Your task to perform on an android device: What's on my calendar today? Image 0: 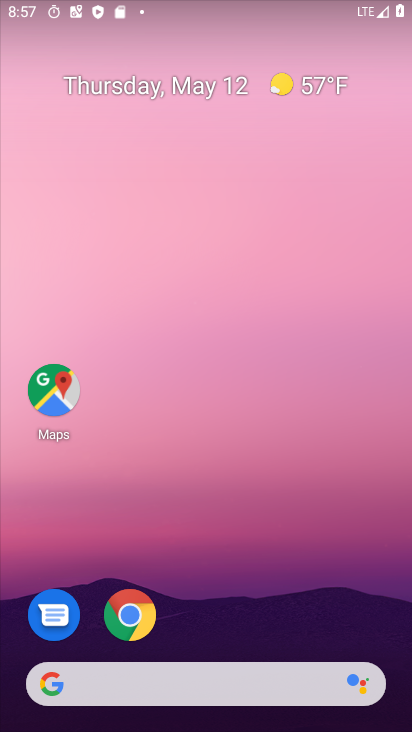
Step 0: drag from (258, 522) to (195, 63)
Your task to perform on an android device: What's on my calendar today? Image 1: 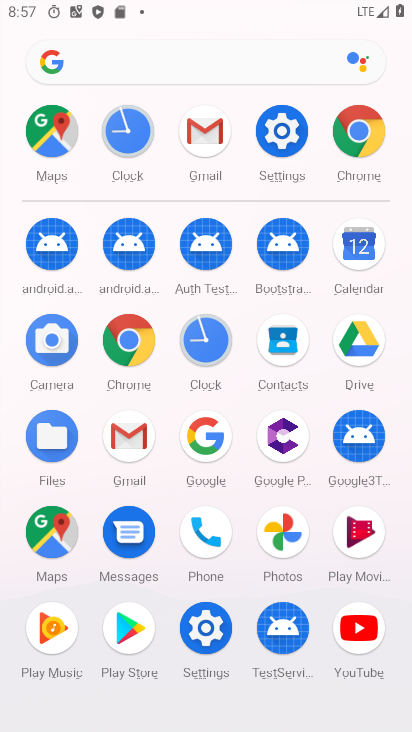
Step 1: drag from (1, 500) to (11, 231)
Your task to perform on an android device: What's on my calendar today? Image 2: 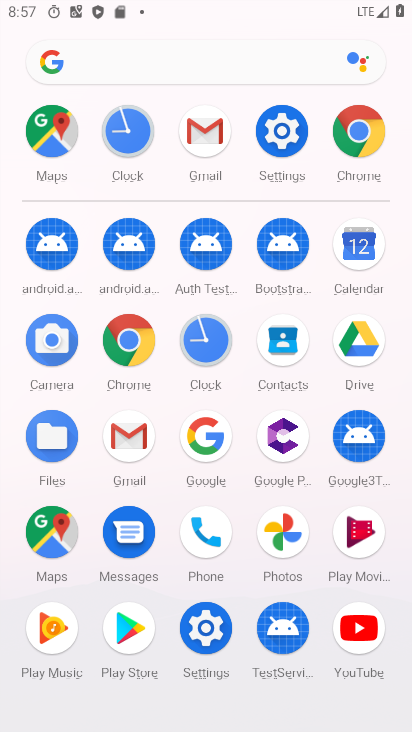
Step 2: click (360, 242)
Your task to perform on an android device: What's on my calendar today? Image 3: 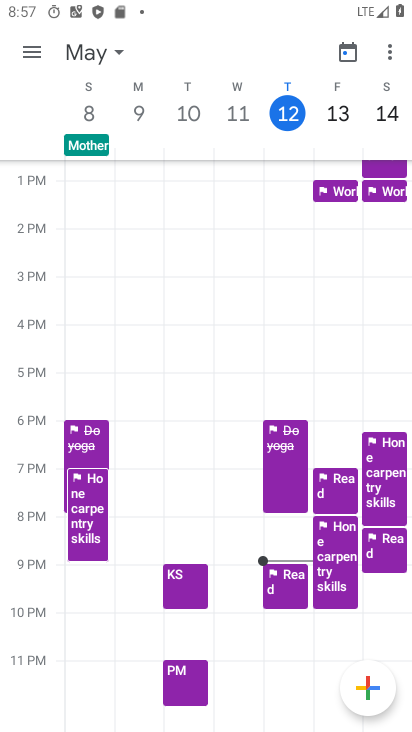
Step 3: click (353, 53)
Your task to perform on an android device: What's on my calendar today? Image 4: 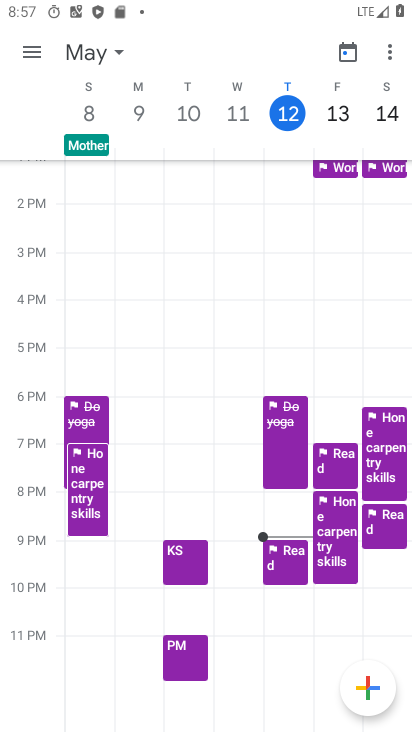
Step 4: click (23, 51)
Your task to perform on an android device: What's on my calendar today? Image 5: 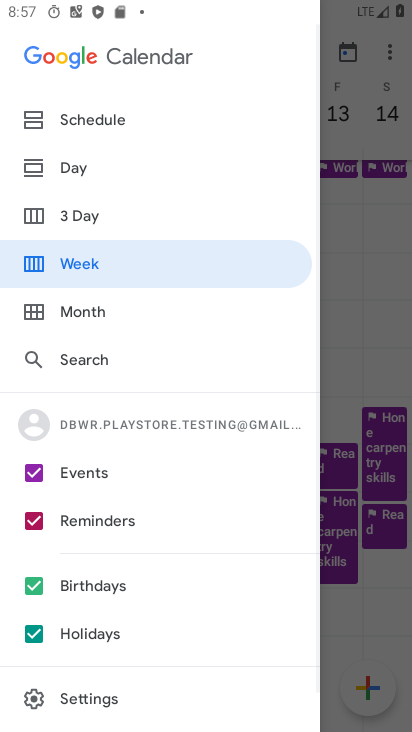
Step 5: click (81, 168)
Your task to perform on an android device: What's on my calendar today? Image 6: 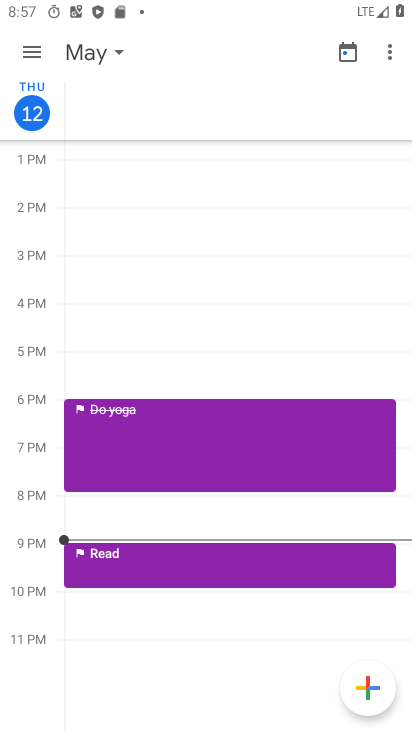
Step 6: task complete